Your task to perform on an android device: change the clock style Image 0: 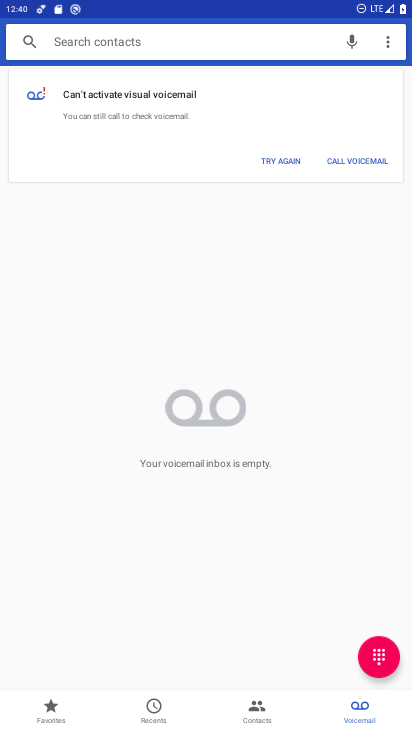
Step 0: drag from (26, 598) to (222, 209)
Your task to perform on an android device: change the clock style Image 1: 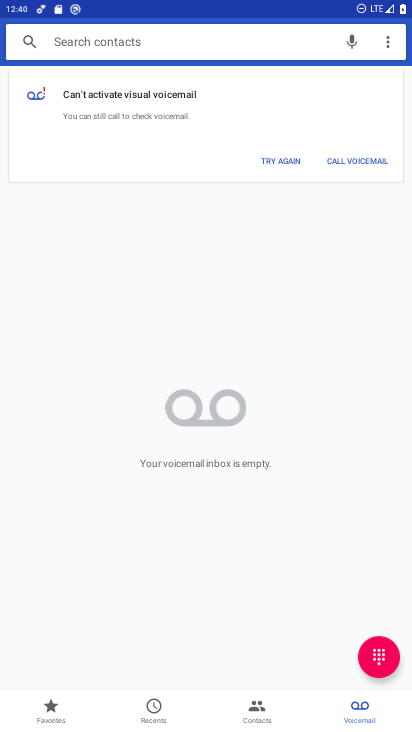
Step 1: drag from (73, 429) to (234, 200)
Your task to perform on an android device: change the clock style Image 2: 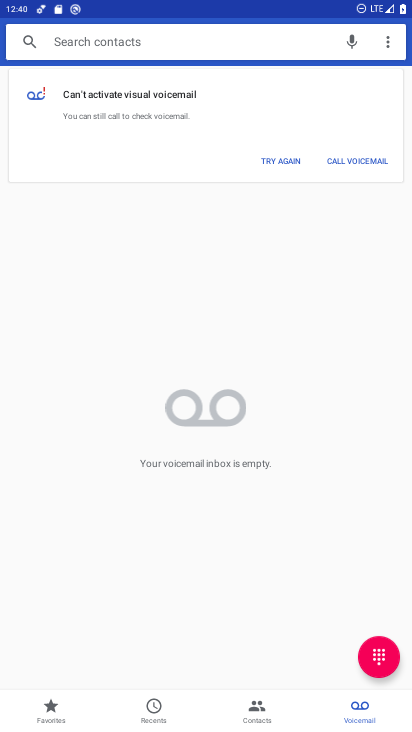
Step 2: press home button
Your task to perform on an android device: change the clock style Image 3: 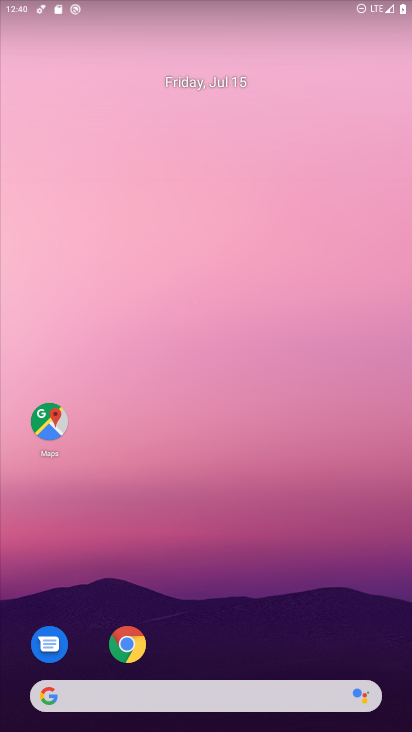
Step 3: drag from (53, 541) to (263, 224)
Your task to perform on an android device: change the clock style Image 4: 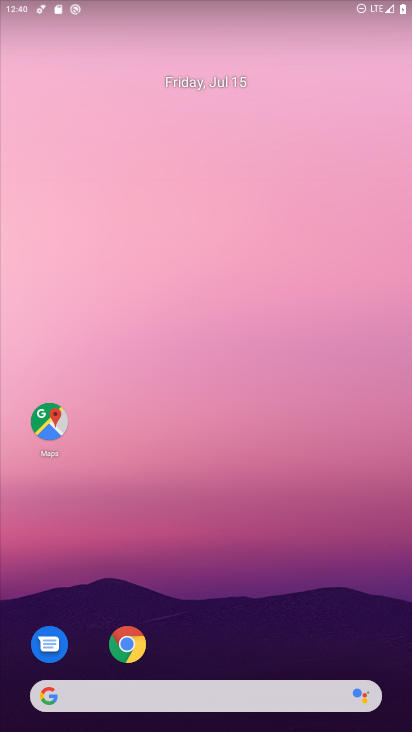
Step 4: drag from (67, 392) to (271, 26)
Your task to perform on an android device: change the clock style Image 5: 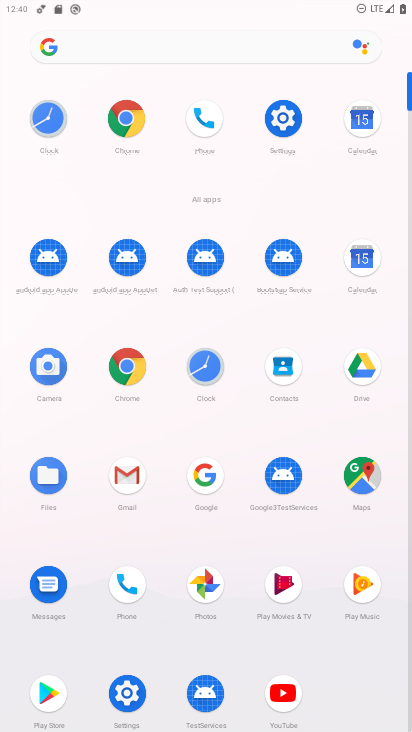
Step 5: click (201, 364)
Your task to perform on an android device: change the clock style Image 6: 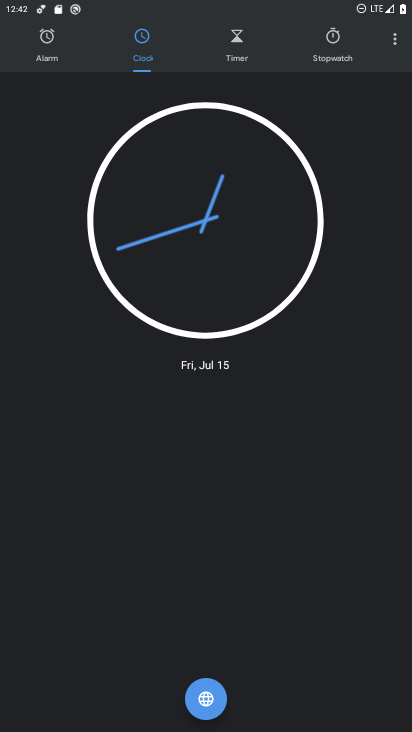
Step 6: click (403, 38)
Your task to perform on an android device: change the clock style Image 7: 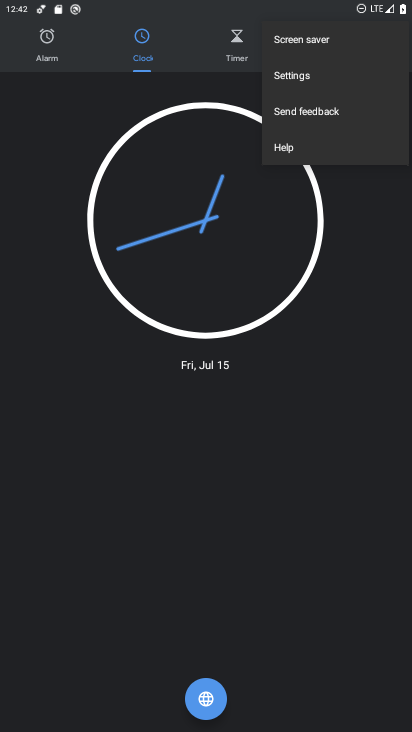
Step 7: click (336, 68)
Your task to perform on an android device: change the clock style Image 8: 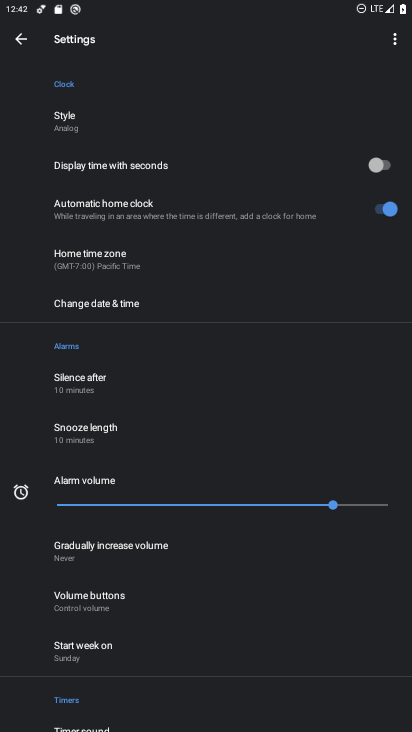
Step 8: click (109, 118)
Your task to perform on an android device: change the clock style Image 9: 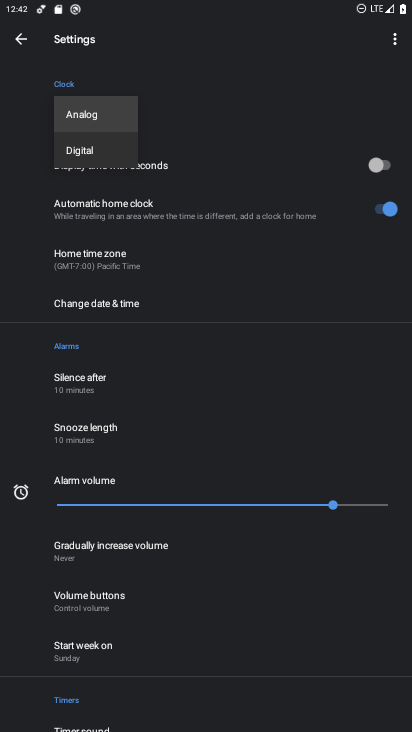
Step 9: click (75, 156)
Your task to perform on an android device: change the clock style Image 10: 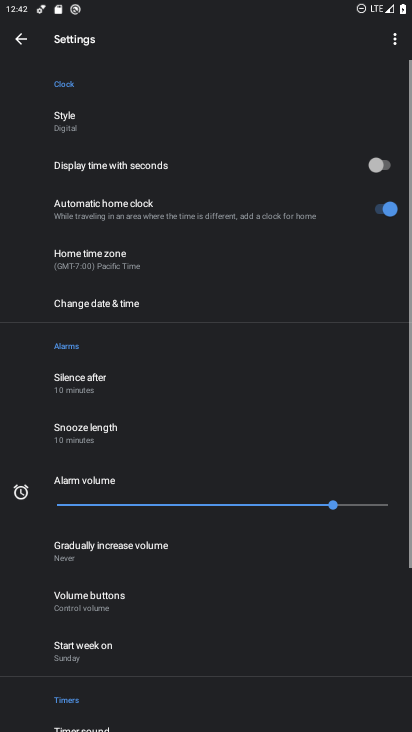
Step 10: task complete